Your task to perform on an android device: Open accessibility settings Image 0: 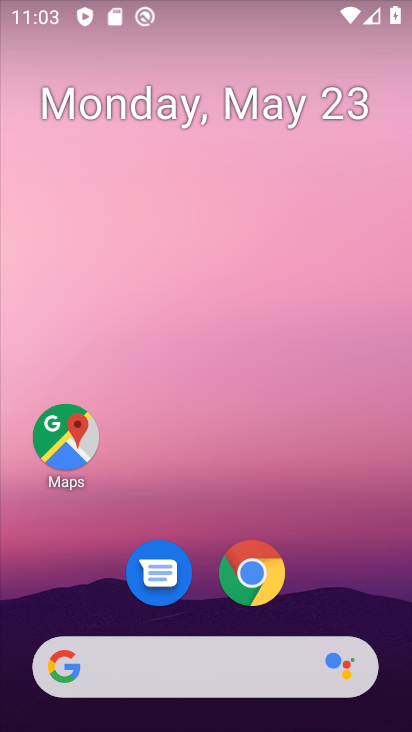
Step 0: drag from (366, 600) to (359, 195)
Your task to perform on an android device: Open accessibility settings Image 1: 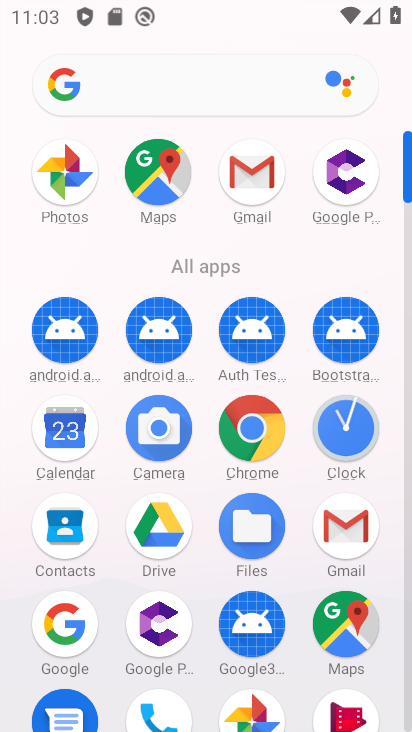
Step 1: drag from (384, 655) to (389, 391)
Your task to perform on an android device: Open accessibility settings Image 2: 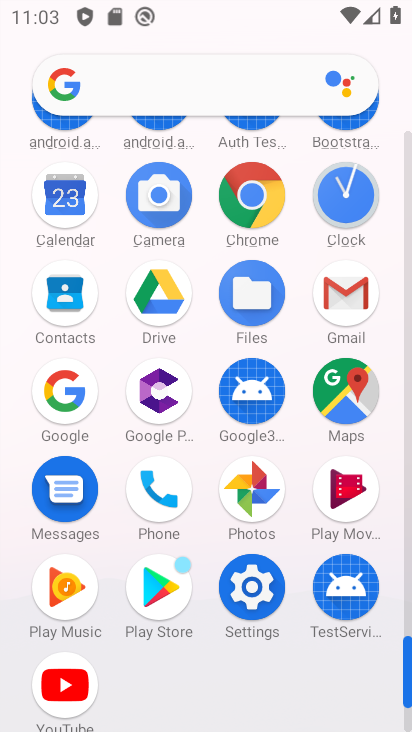
Step 2: click (251, 598)
Your task to perform on an android device: Open accessibility settings Image 3: 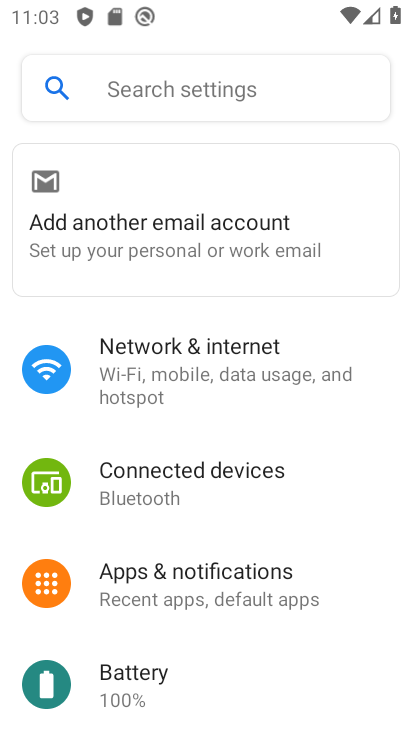
Step 3: drag from (386, 231) to (383, 466)
Your task to perform on an android device: Open accessibility settings Image 4: 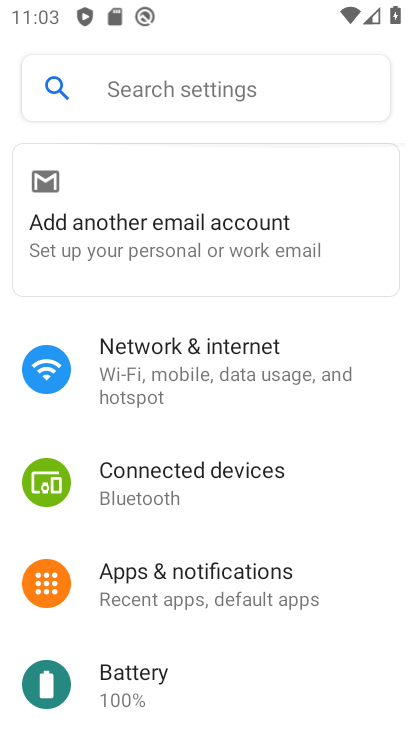
Step 4: drag from (365, 560) to (366, 409)
Your task to perform on an android device: Open accessibility settings Image 5: 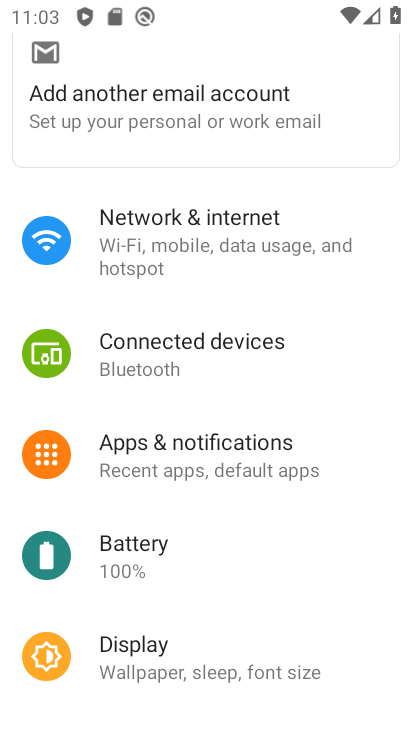
Step 5: drag from (362, 629) to (359, 440)
Your task to perform on an android device: Open accessibility settings Image 6: 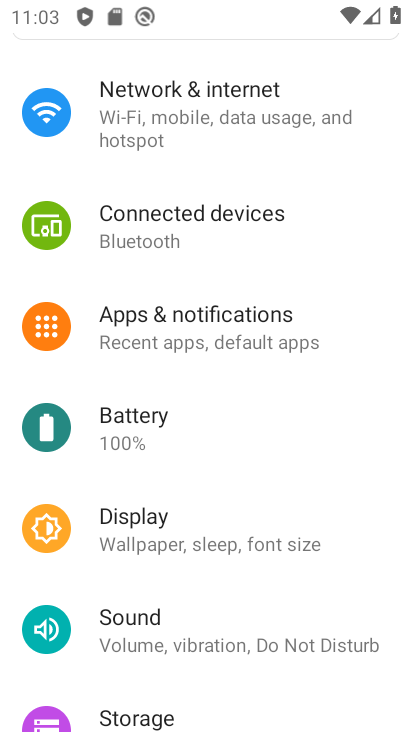
Step 6: drag from (332, 664) to (341, 496)
Your task to perform on an android device: Open accessibility settings Image 7: 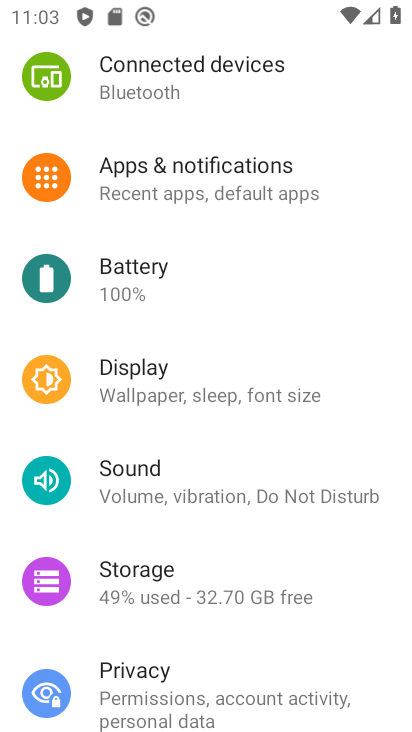
Step 7: drag from (367, 647) to (378, 485)
Your task to perform on an android device: Open accessibility settings Image 8: 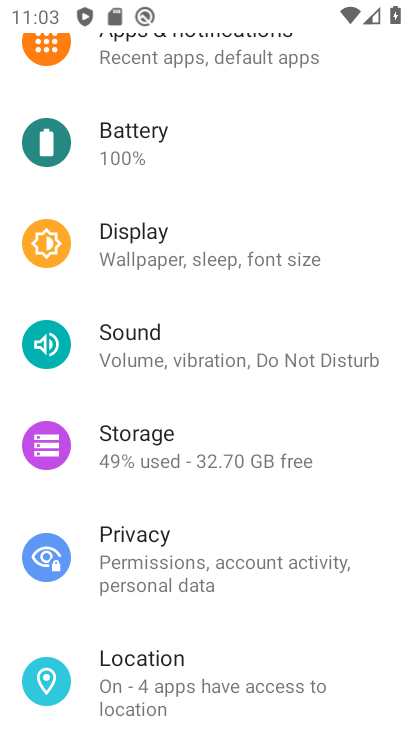
Step 8: drag from (366, 655) to (353, 515)
Your task to perform on an android device: Open accessibility settings Image 9: 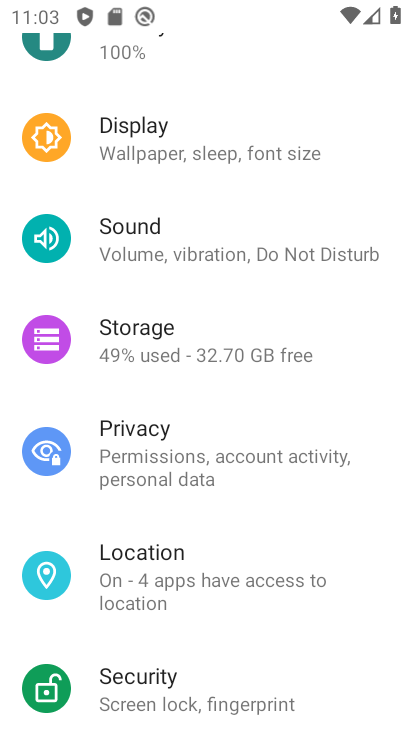
Step 9: drag from (363, 668) to (369, 507)
Your task to perform on an android device: Open accessibility settings Image 10: 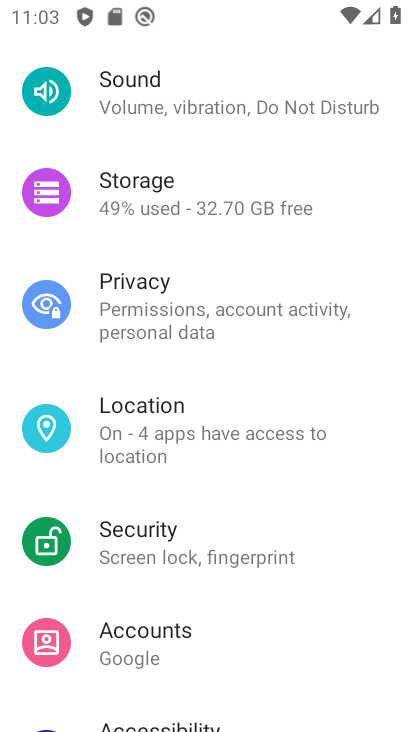
Step 10: drag from (359, 590) to (373, 488)
Your task to perform on an android device: Open accessibility settings Image 11: 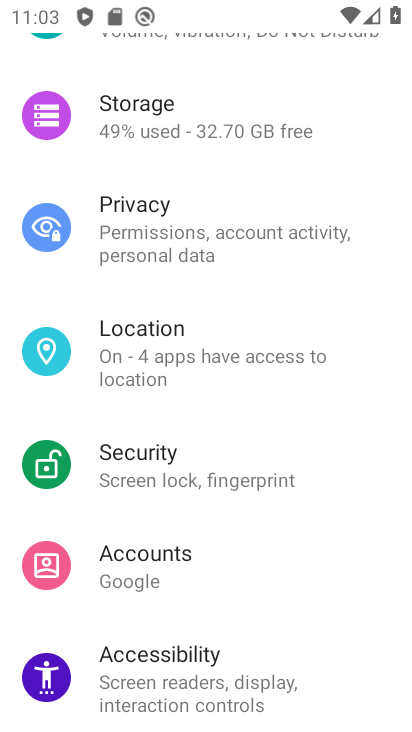
Step 11: click (232, 677)
Your task to perform on an android device: Open accessibility settings Image 12: 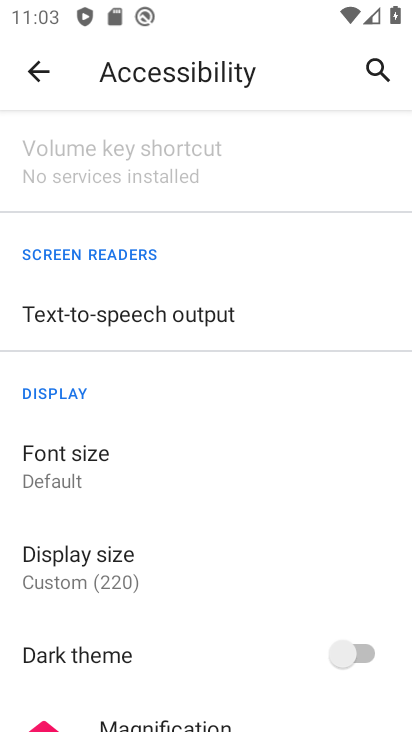
Step 12: task complete